Your task to perform on an android device: change the upload size in google photos Image 0: 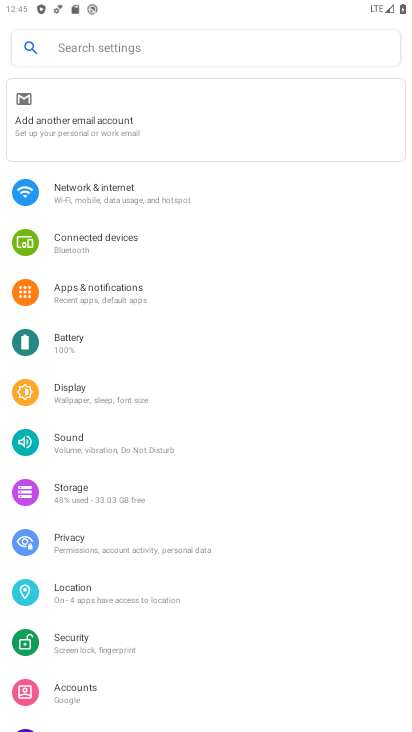
Step 0: press home button
Your task to perform on an android device: change the upload size in google photos Image 1: 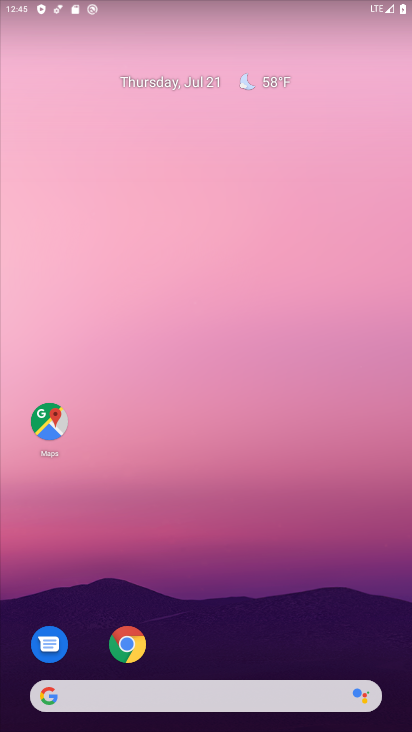
Step 1: drag from (385, 627) to (387, 122)
Your task to perform on an android device: change the upload size in google photos Image 2: 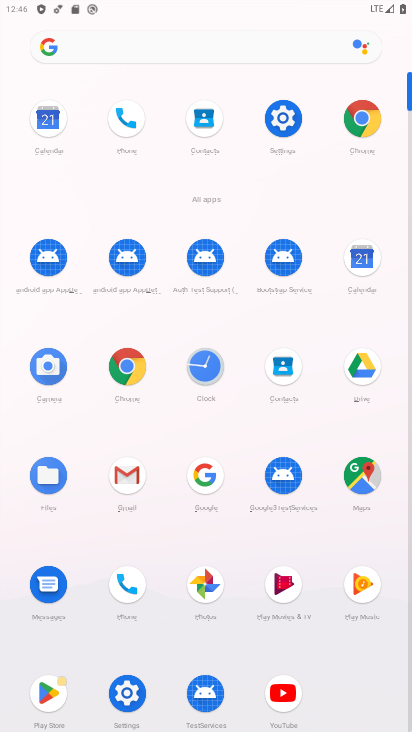
Step 2: click (213, 590)
Your task to perform on an android device: change the upload size in google photos Image 3: 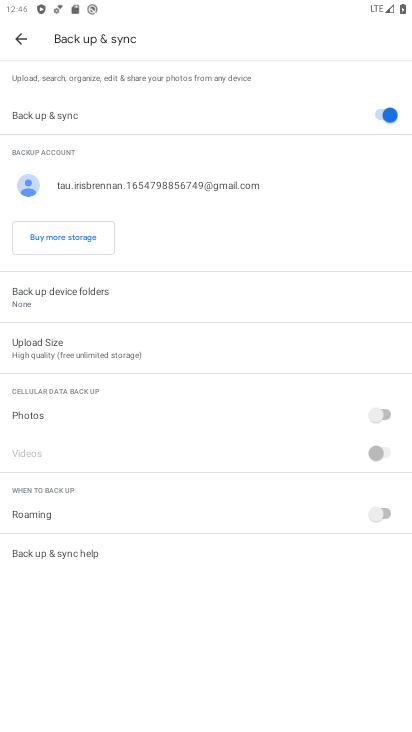
Step 3: click (192, 358)
Your task to perform on an android device: change the upload size in google photos Image 4: 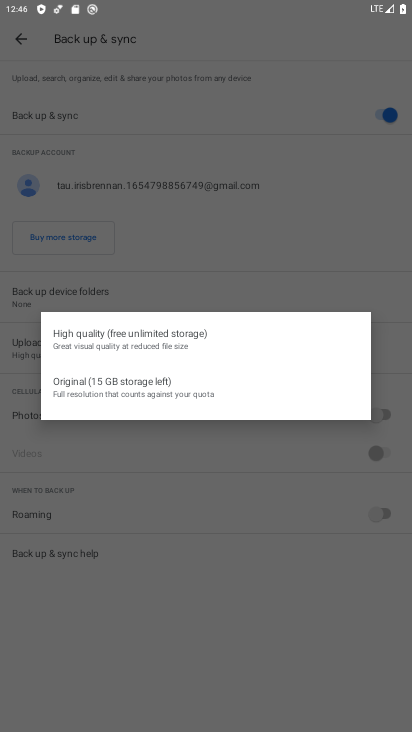
Step 4: click (187, 346)
Your task to perform on an android device: change the upload size in google photos Image 5: 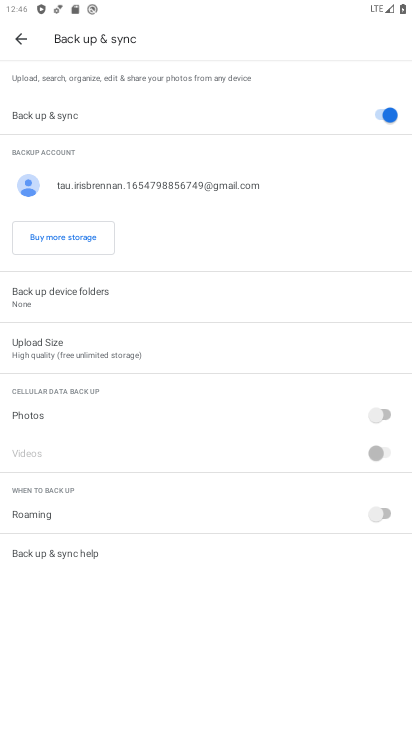
Step 5: task complete